Your task to perform on an android device: Open Chrome and go to the settings page Image 0: 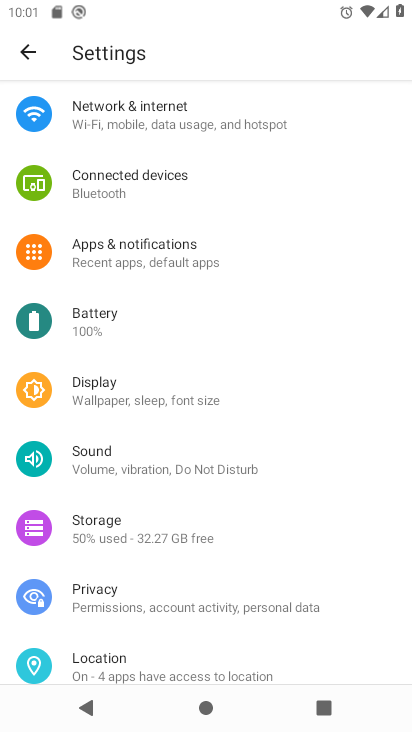
Step 0: press home button
Your task to perform on an android device: Open Chrome and go to the settings page Image 1: 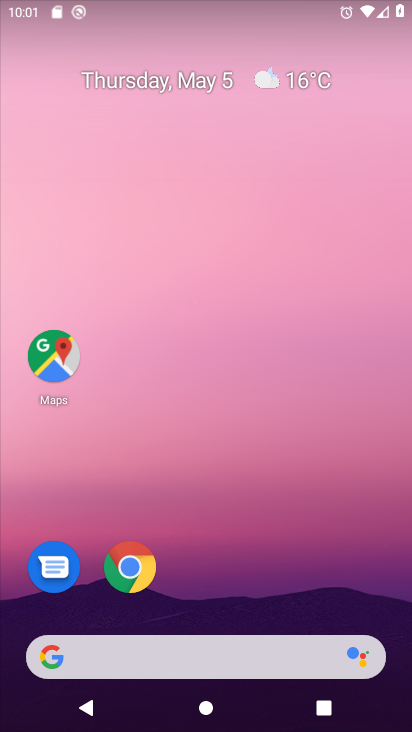
Step 1: drag from (270, 588) to (283, 20)
Your task to perform on an android device: Open Chrome and go to the settings page Image 2: 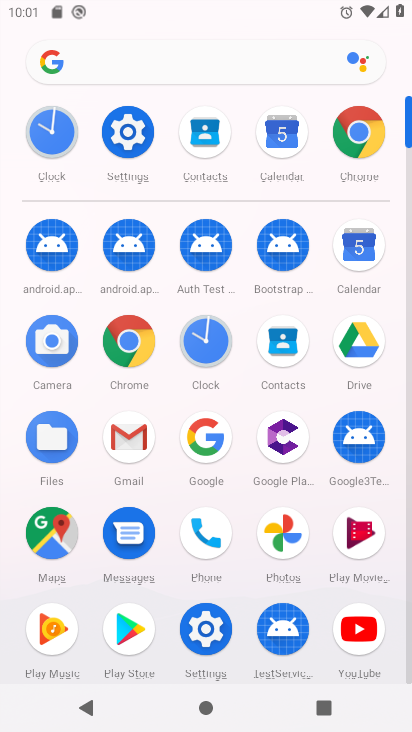
Step 2: click (347, 136)
Your task to perform on an android device: Open Chrome and go to the settings page Image 3: 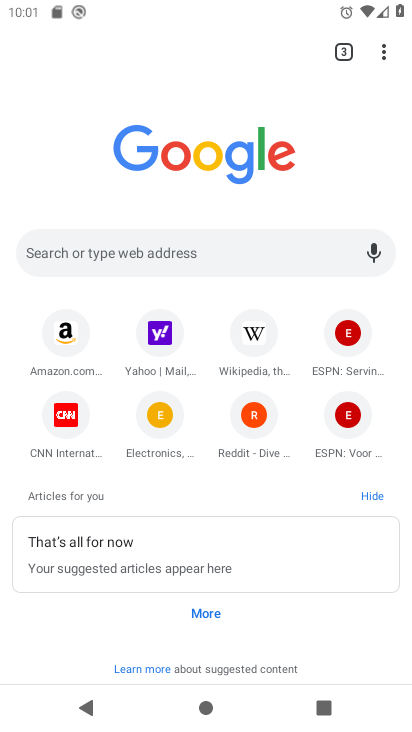
Step 3: click (380, 54)
Your task to perform on an android device: Open Chrome and go to the settings page Image 4: 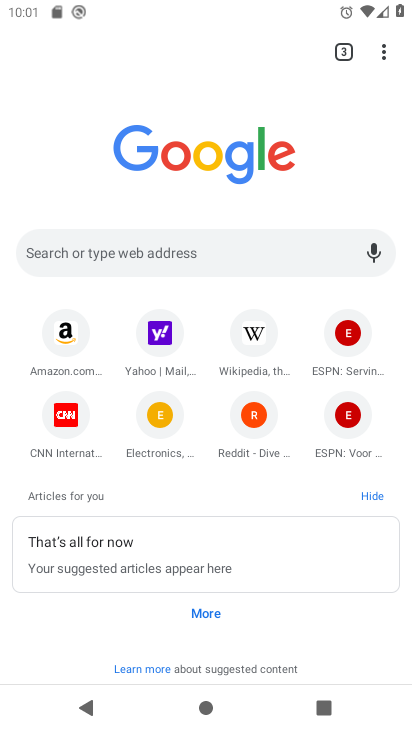
Step 4: task complete